Your task to perform on an android device: Search for the best running shoes on Nike. Image 0: 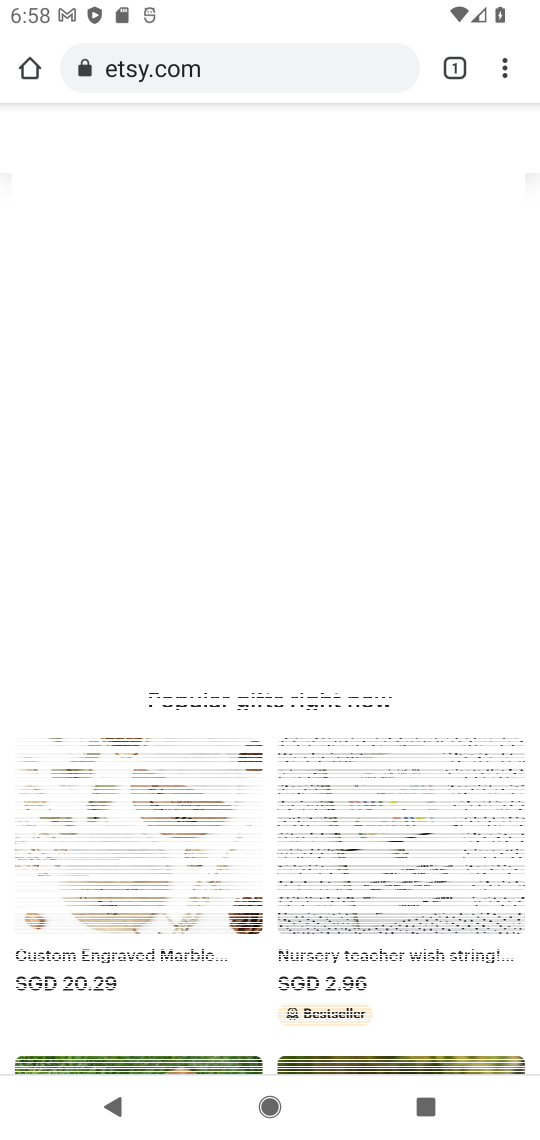
Step 0: press home button
Your task to perform on an android device: Search for the best running shoes on Nike. Image 1: 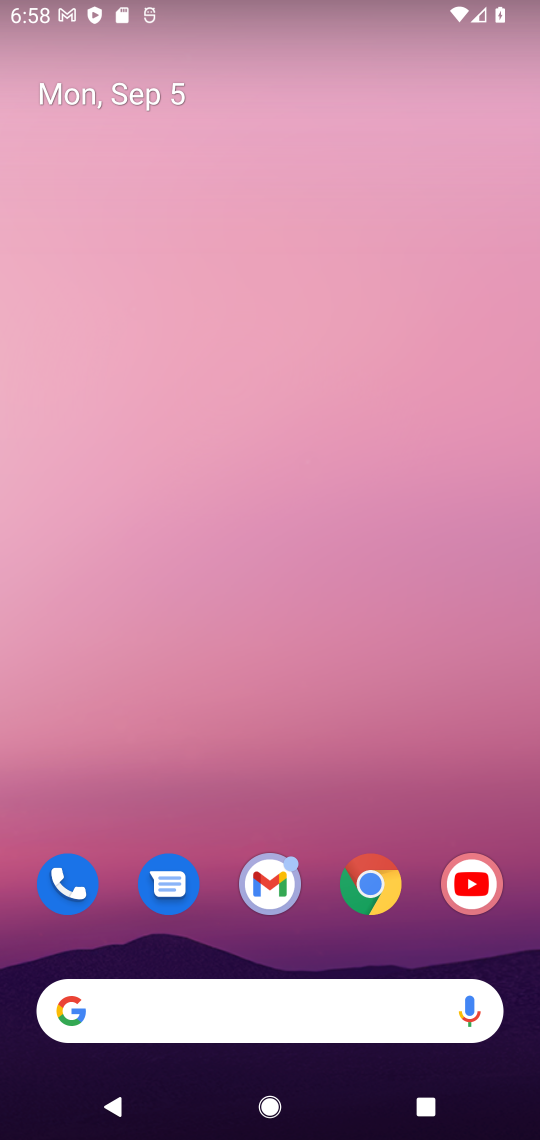
Step 1: drag from (319, 927) to (319, 249)
Your task to perform on an android device: Search for the best running shoes on Nike. Image 2: 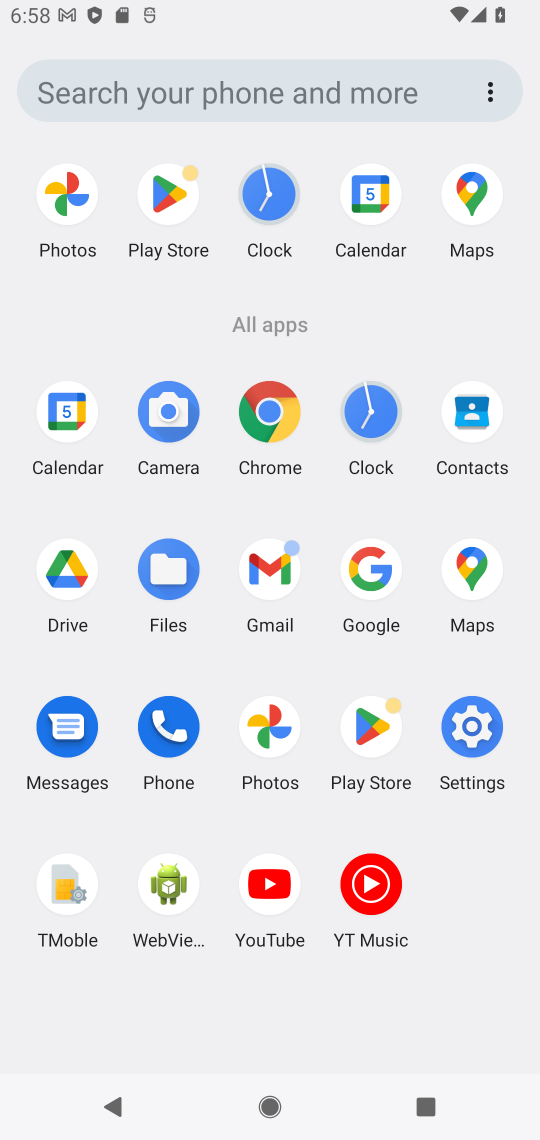
Step 2: click (371, 559)
Your task to perform on an android device: Search for the best running shoes on Nike. Image 3: 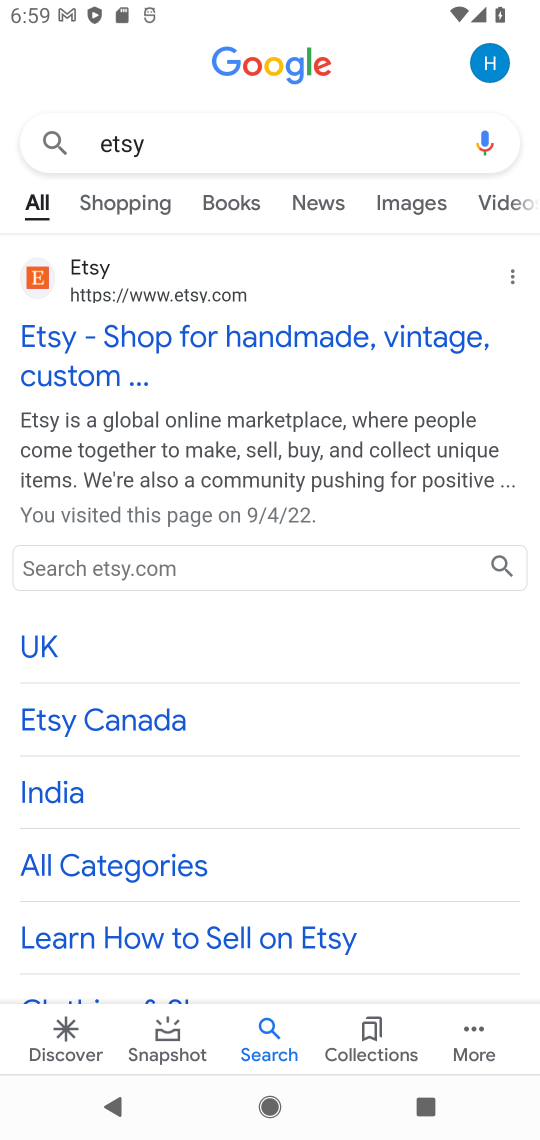
Step 3: click (156, 144)
Your task to perform on an android device: Search for the best running shoes on Nike. Image 4: 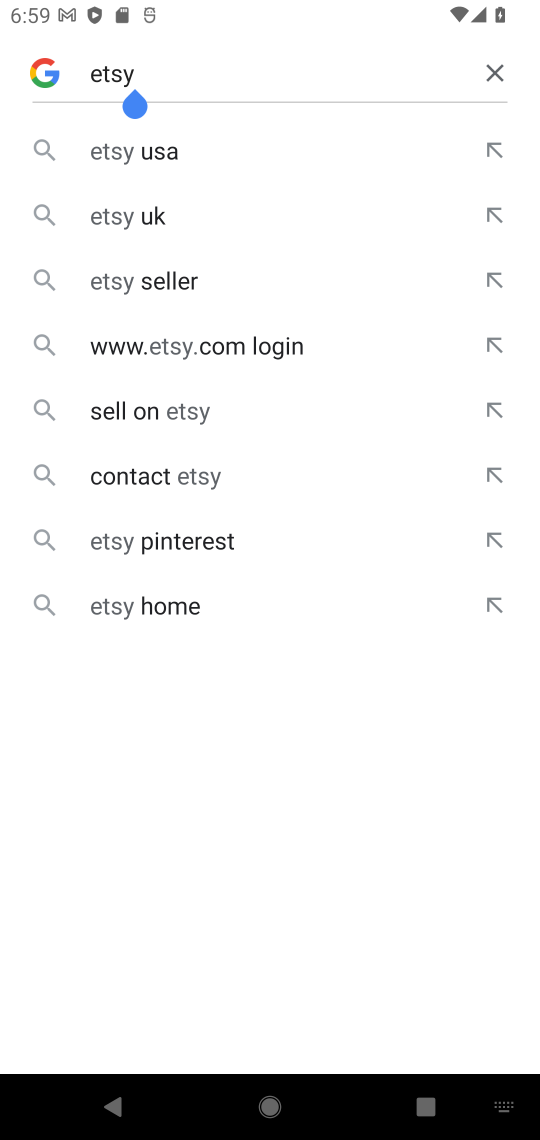
Step 4: click (495, 78)
Your task to perform on an android device: Search for the best running shoes on Nike. Image 5: 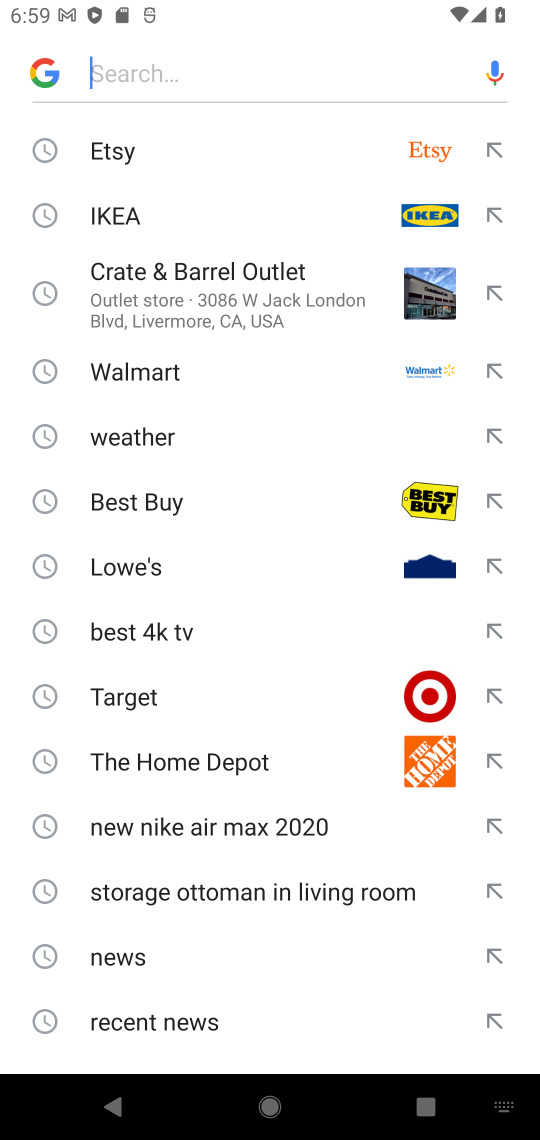
Step 5: click (141, 58)
Your task to perform on an android device: Search for the best running shoes on Nike. Image 6: 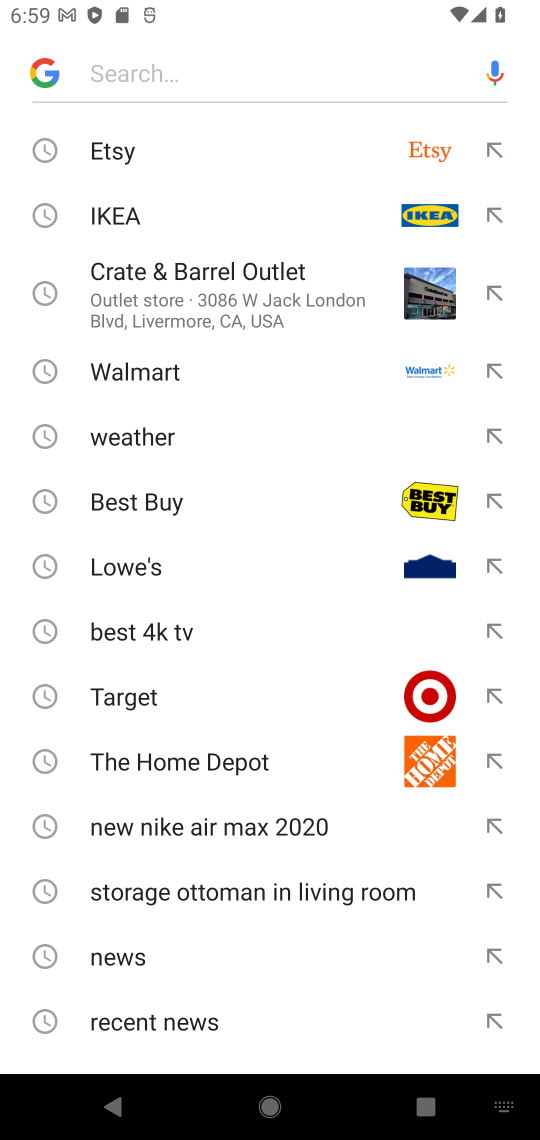
Step 6: type "Nike"
Your task to perform on an android device: Search for the best running shoes on Nike. Image 7: 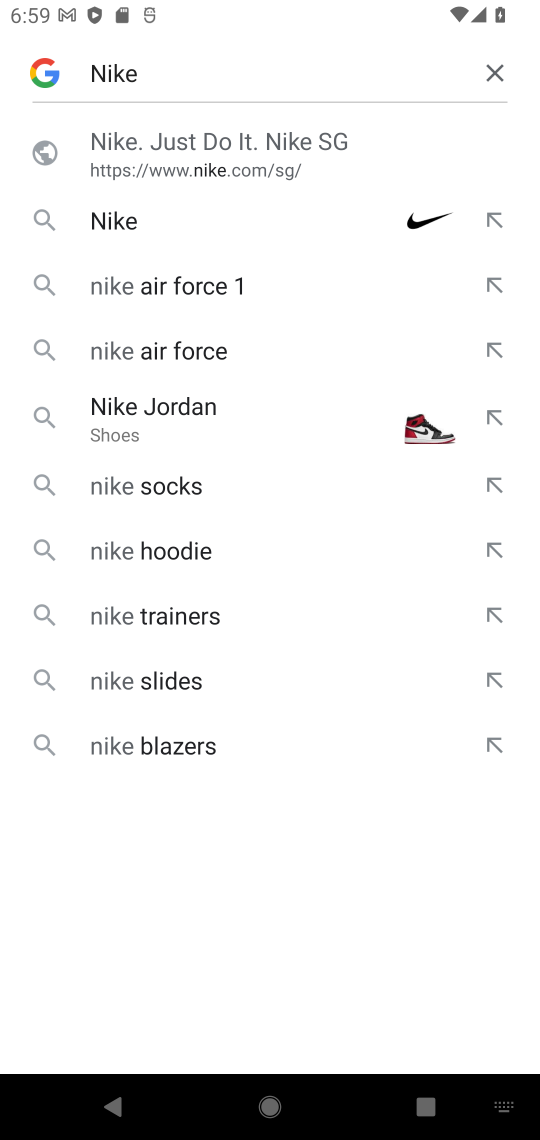
Step 7: click (146, 220)
Your task to perform on an android device: Search for the best running shoes on Nike. Image 8: 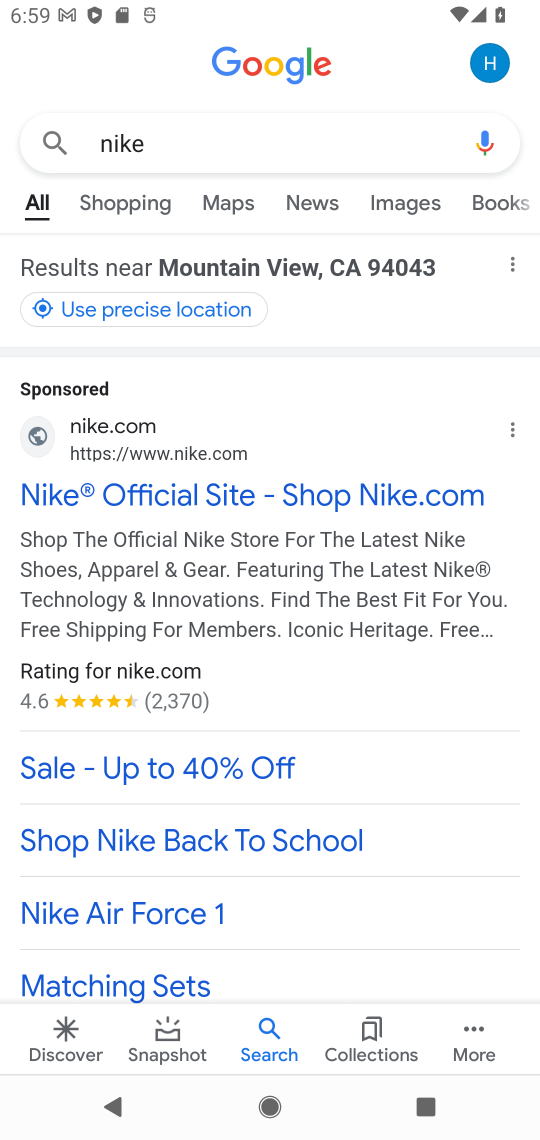
Step 8: click (176, 501)
Your task to perform on an android device: Search for the best running shoes on Nike. Image 9: 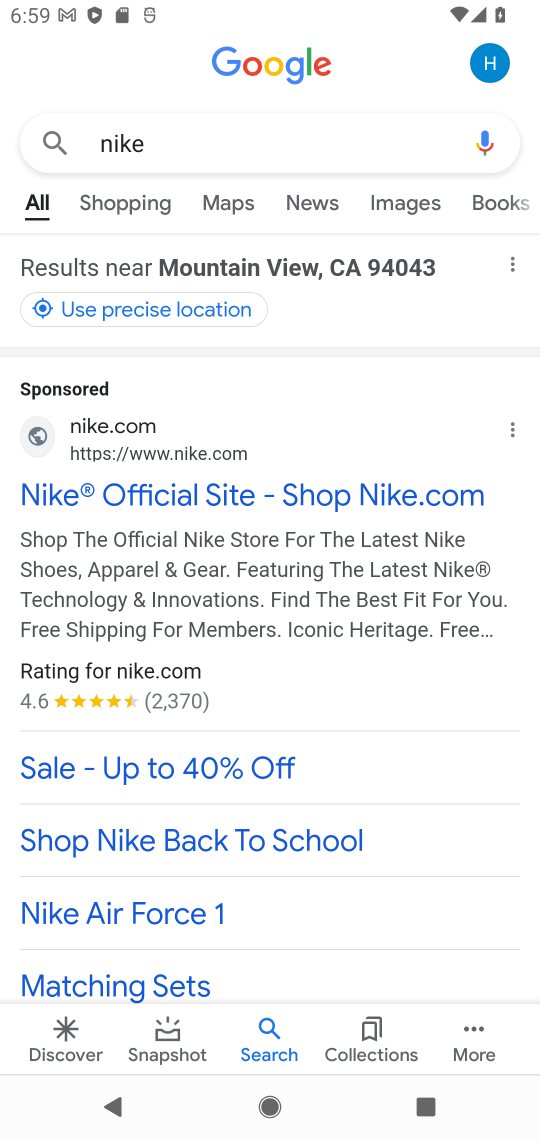
Step 9: click (151, 491)
Your task to perform on an android device: Search for the best running shoes on Nike. Image 10: 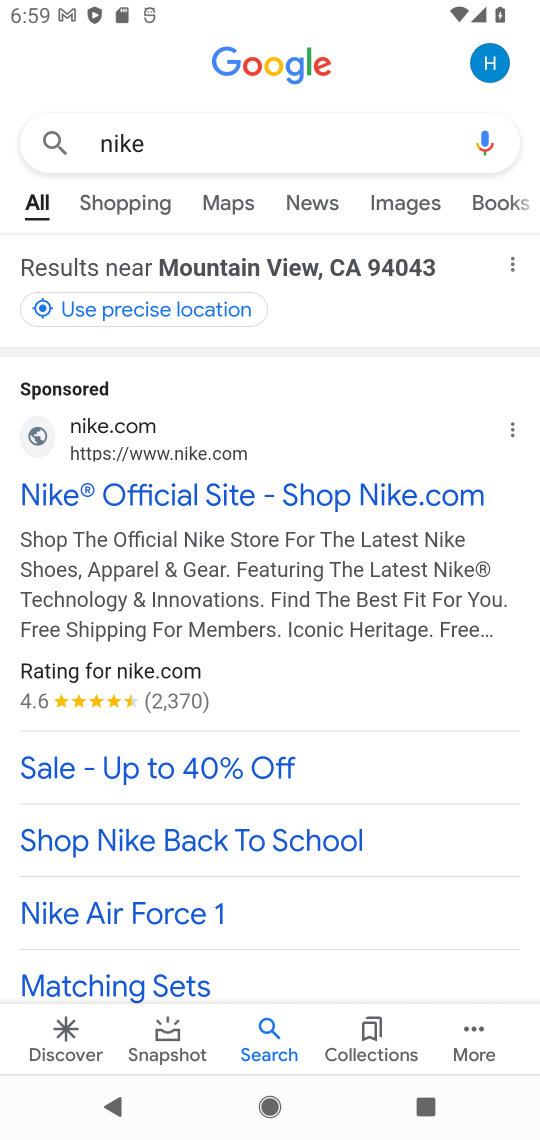
Step 10: click (36, 491)
Your task to perform on an android device: Search for the best running shoes on Nike. Image 11: 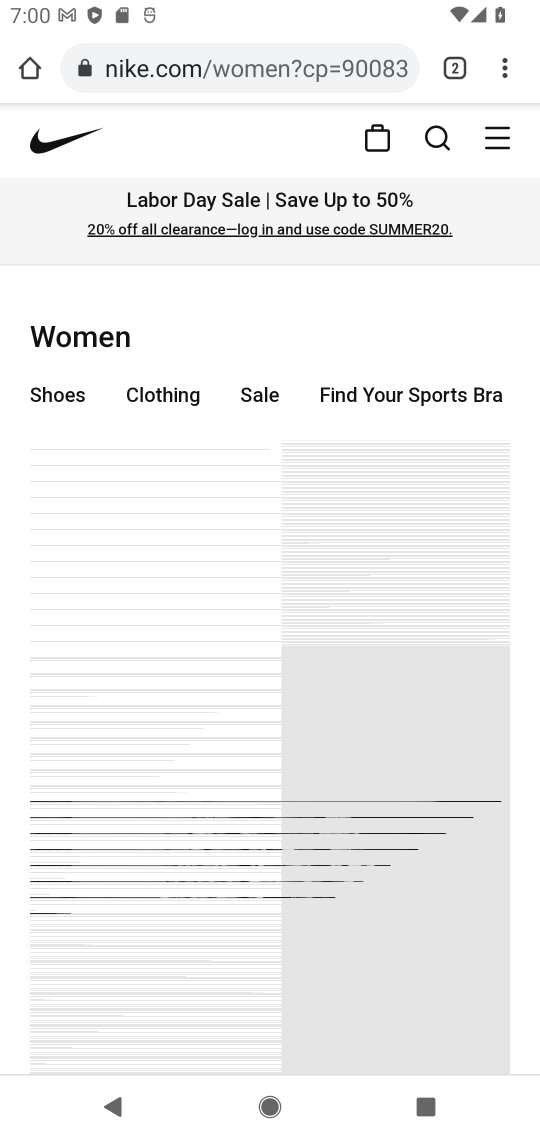
Step 11: click (437, 130)
Your task to perform on an android device: Search for the best running shoes on Nike. Image 12: 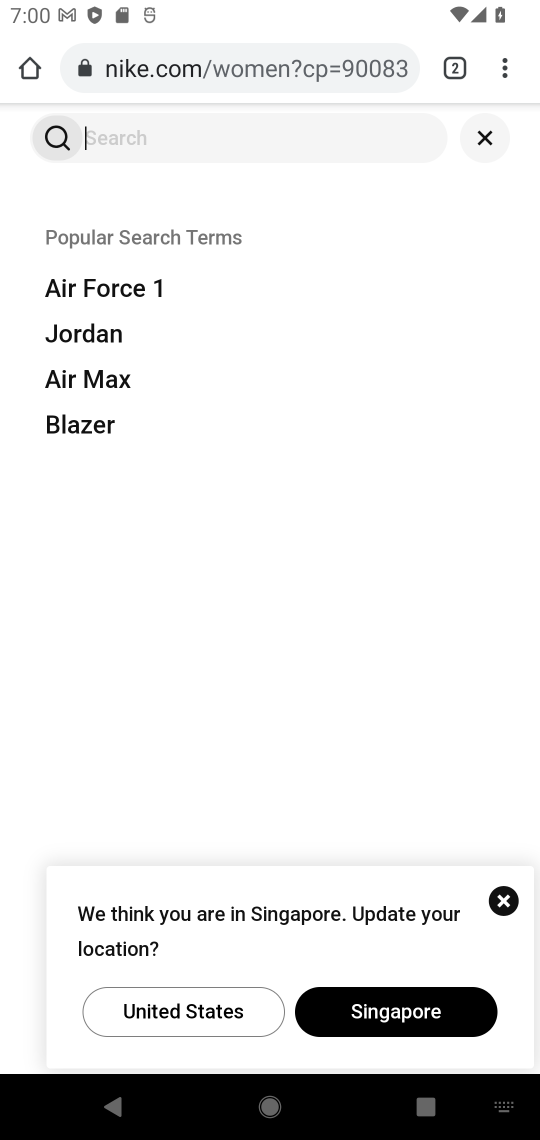
Step 12: type "best running shoes"
Your task to perform on an android device: Search for the best running shoes on Nike. Image 13: 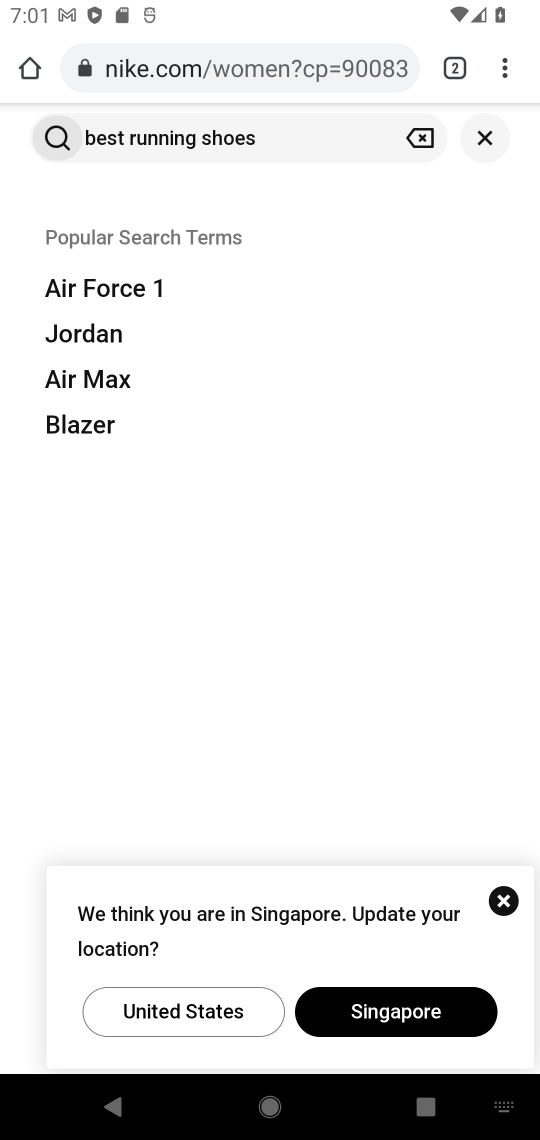
Step 13: click (87, 337)
Your task to perform on an android device: Search for the best running shoes on Nike. Image 14: 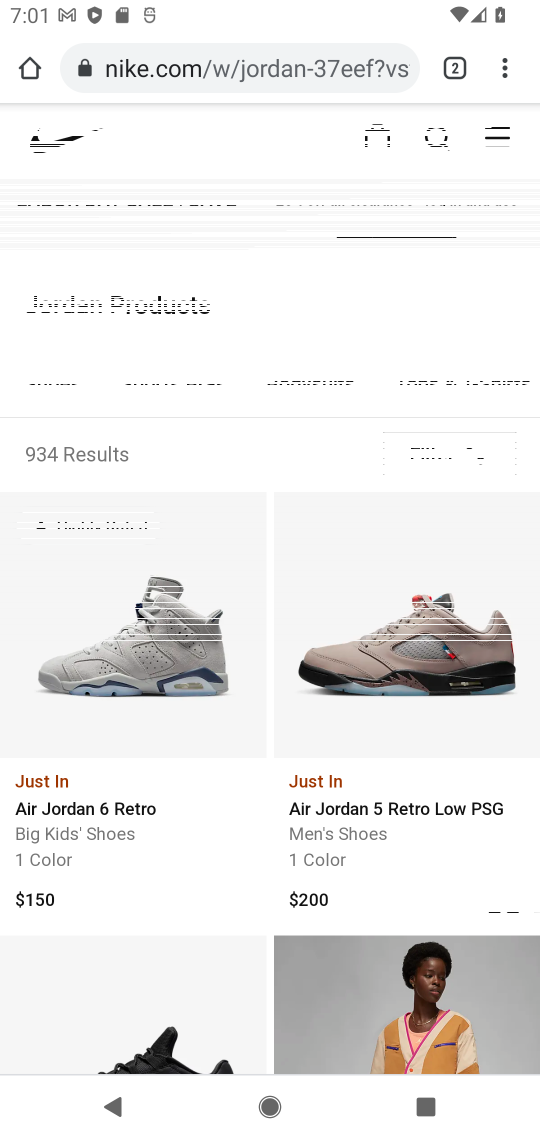
Step 14: task complete